Your task to perform on an android device: Show me popular games on the Play Store Image 0: 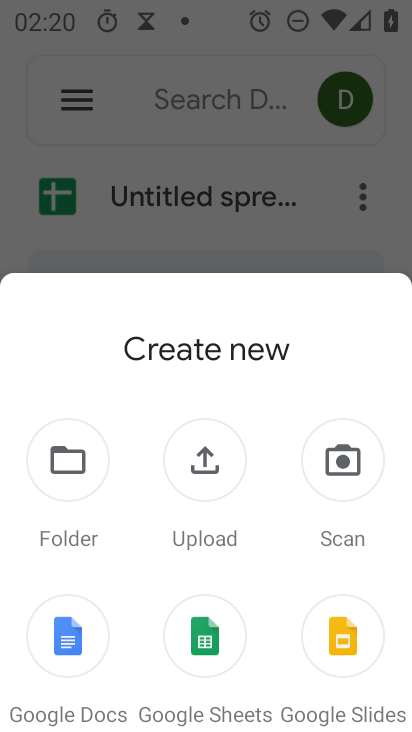
Step 0: press home button
Your task to perform on an android device: Show me popular games on the Play Store Image 1: 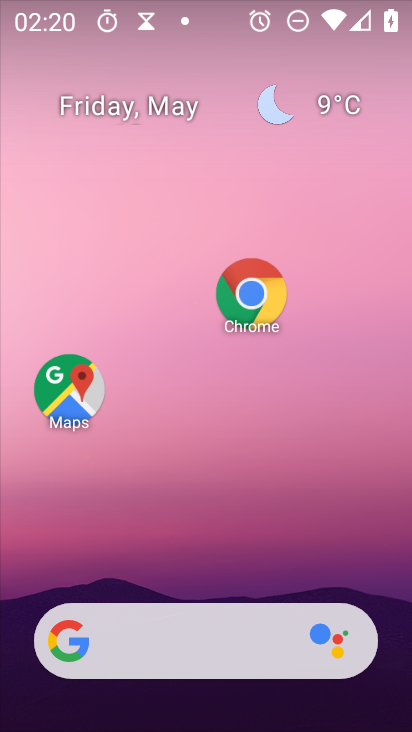
Step 1: drag from (204, 626) to (318, 151)
Your task to perform on an android device: Show me popular games on the Play Store Image 2: 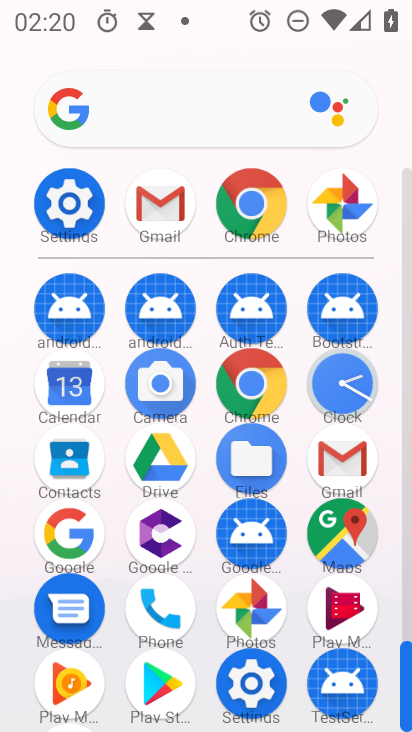
Step 2: click (152, 692)
Your task to perform on an android device: Show me popular games on the Play Store Image 3: 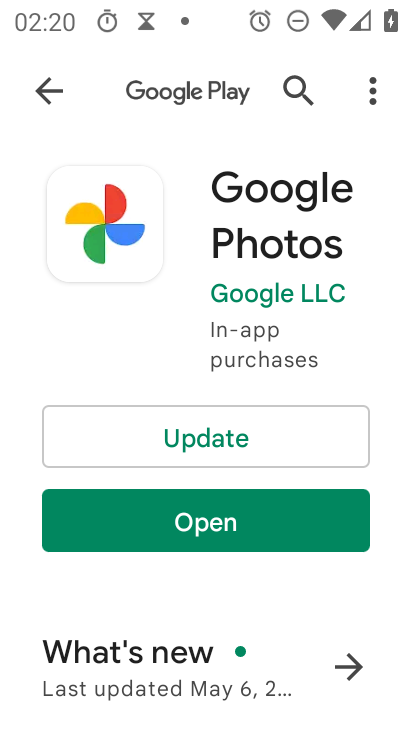
Step 3: click (64, 94)
Your task to perform on an android device: Show me popular games on the Play Store Image 4: 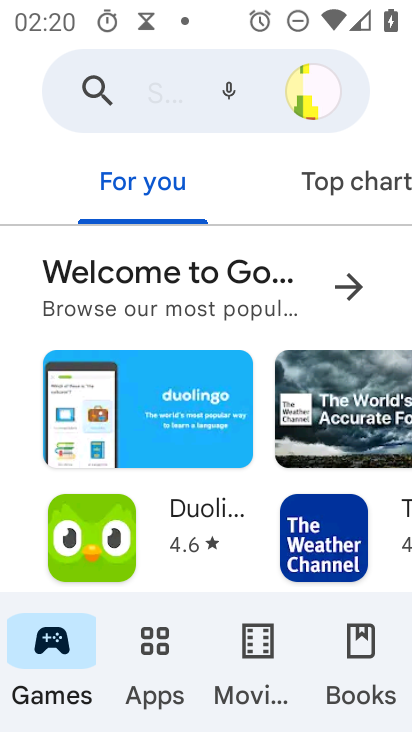
Step 4: drag from (228, 580) to (341, 98)
Your task to perform on an android device: Show me popular games on the Play Store Image 5: 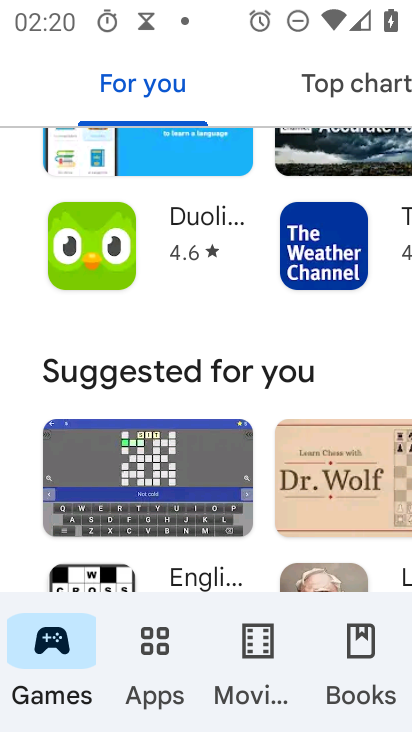
Step 5: drag from (234, 563) to (366, 133)
Your task to perform on an android device: Show me popular games on the Play Store Image 6: 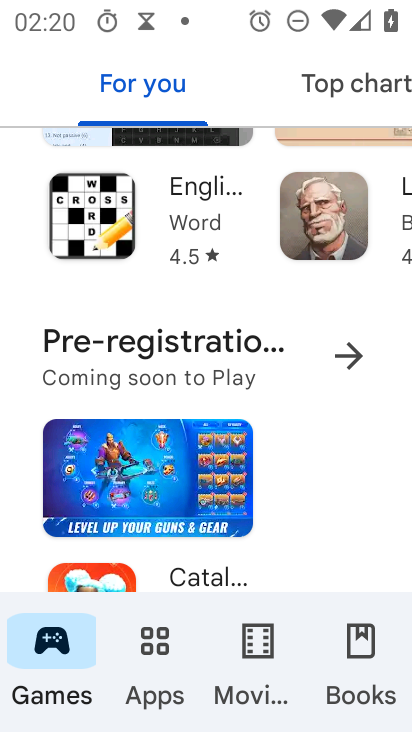
Step 6: drag from (216, 527) to (355, 48)
Your task to perform on an android device: Show me popular games on the Play Store Image 7: 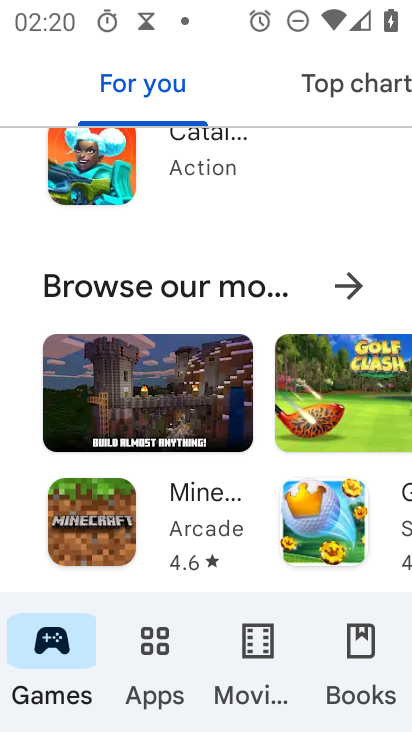
Step 7: click (228, 289)
Your task to perform on an android device: Show me popular games on the Play Store Image 8: 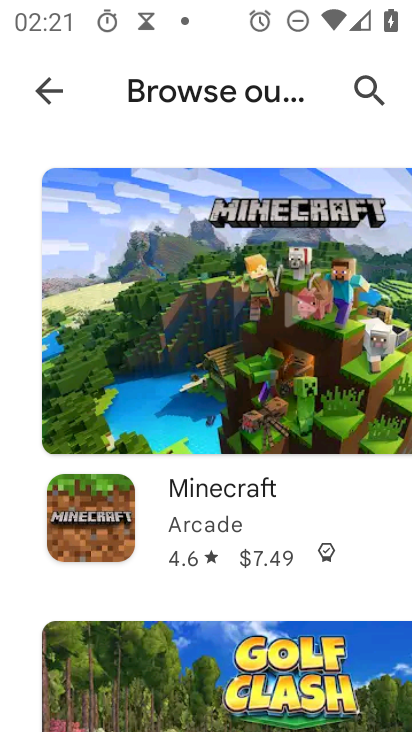
Step 8: task complete